Your task to perform on an android device: turn off location history Image 0: 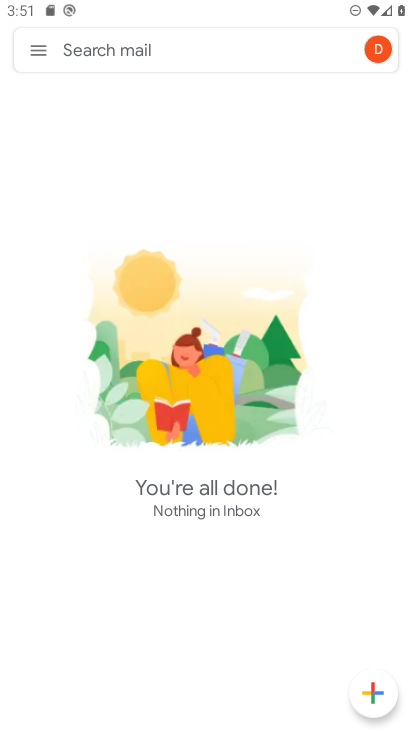
Step 0: press home button
Your task to perform on an android device: turn off location history Image 1: 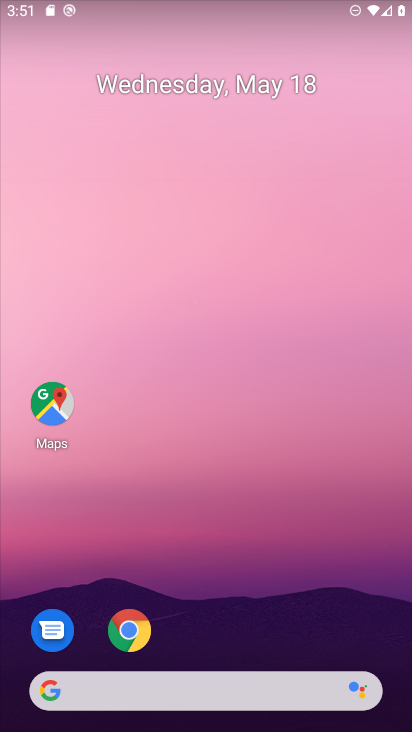
Step 1: drag from (220, 647) to (265, 58)
Your task to perform on an android device: turn off location history Image 2: 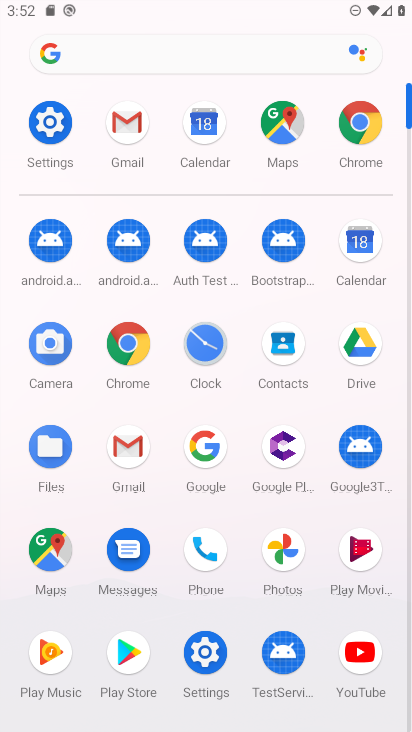
Step 2: click (204, 647)
Your task to perform on an android device: turn off location history Image 3: 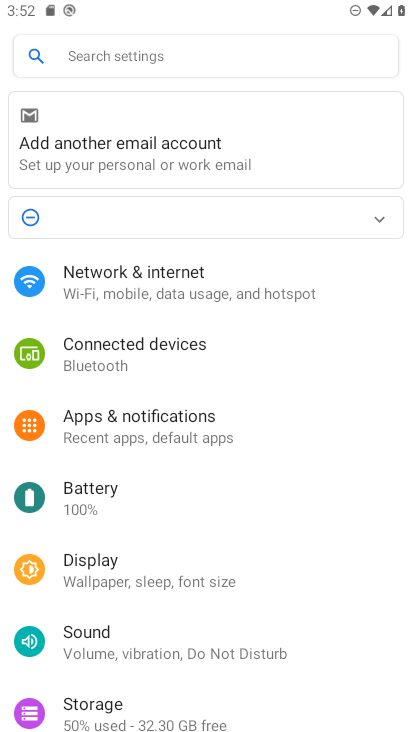
Step 3: drag from (194, 691) to (217, 233)
Your task to perform on an android device: turn off location history Image 4: 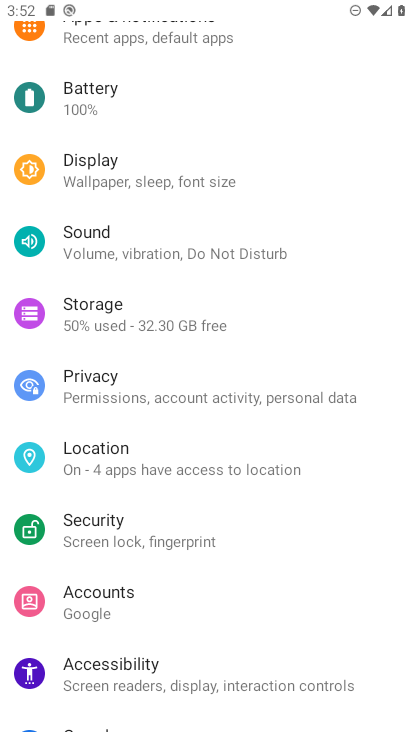
Step 4: click (139, 444)
Your task to perform on an android device: turn off location history Image 5: 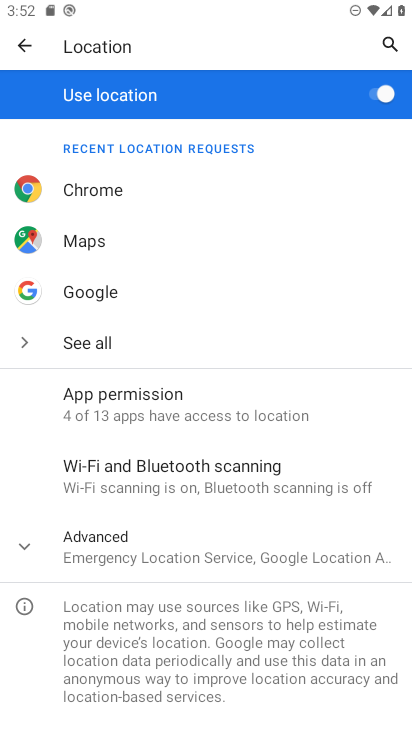
Step 5: click (23, 542)
Your task to perform on an android device: turn off location history Image 6: 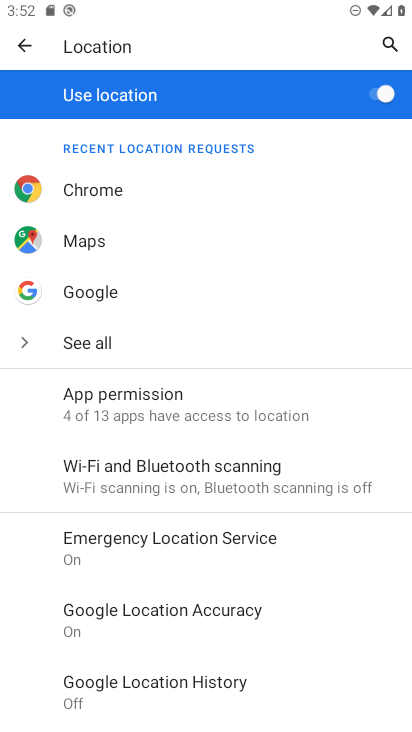
Step 6: click (129, 696)
Your task to perform on an android device: turn off location history Image 7: 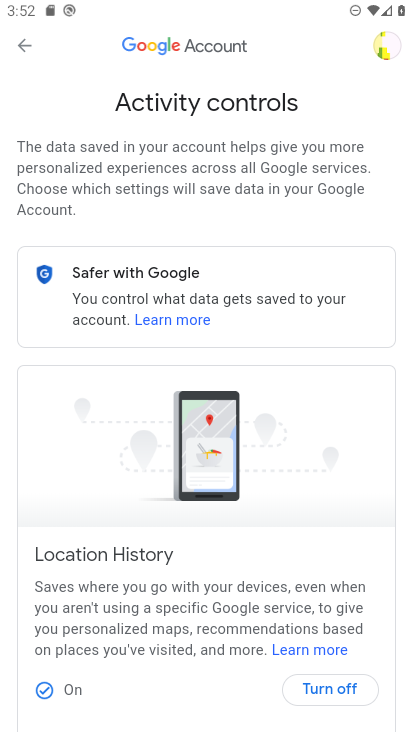
Step 7: click (334, 688)
Your task to perform on an android device: turn off location history Image 8: 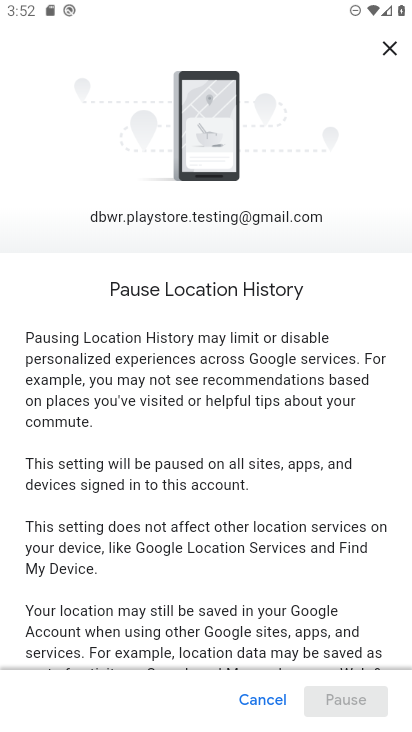
Step 8: drag from (231, 628) to (236, 80)
Your task to perform on an android device: turn off location history Image 9: 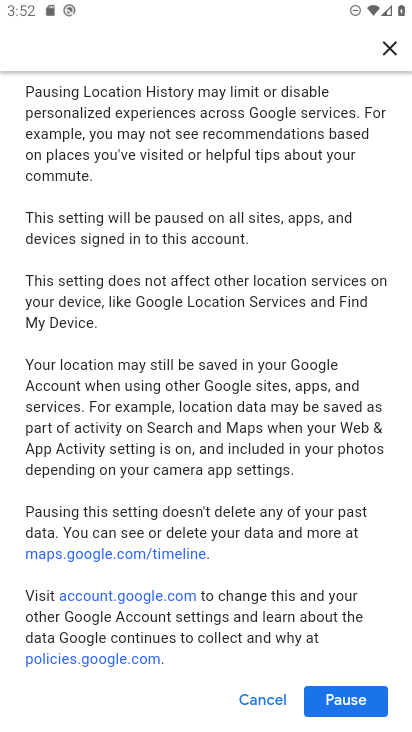
Step 9: click (341, 698)
Your task to perform on an android device: turn off location history Image 10: 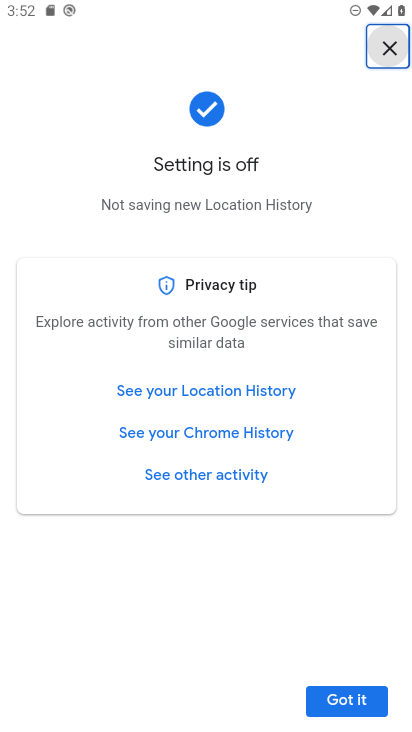
Step 10: click (351, 698)
Your task to perform on an android device: turn off location history Image 11: 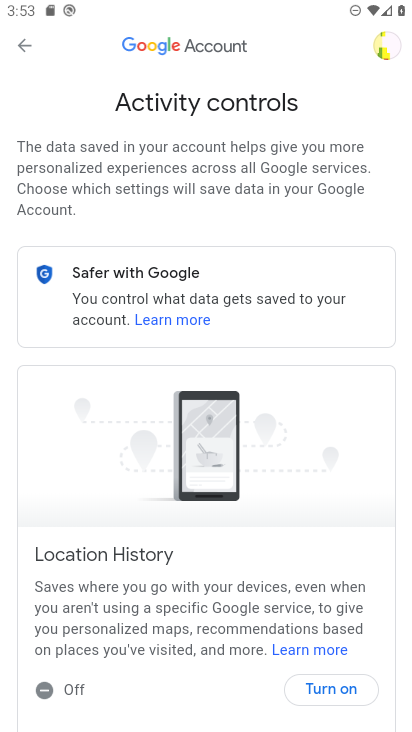
Step 11: task complete